Your task to perform on an android device: toggle translation in the chrome app Image 0: 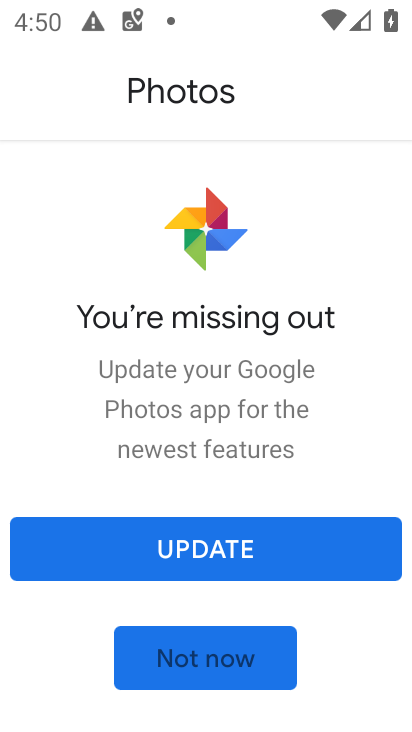
Step 0: press home button
Your task to perform on an android device: toggle translation in the chrome app Image 1: 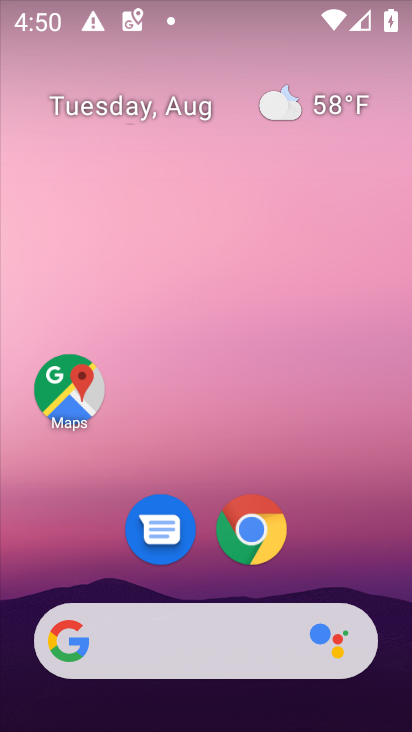
Step 1: click (245, 531)
Your task to perform on an android device: toggle translation in the chrome app Image 2: 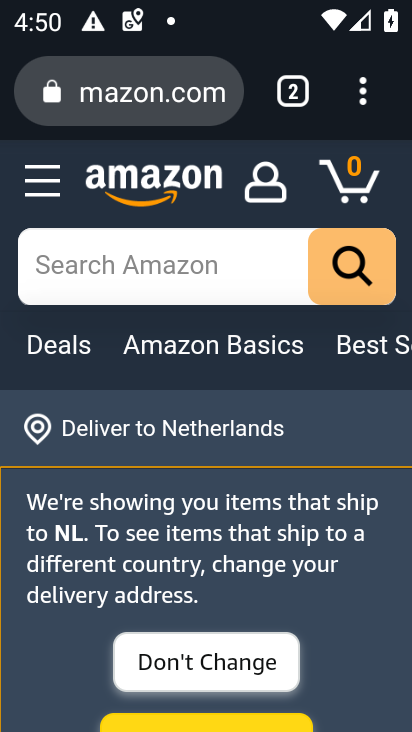
Step 2: click (377, 93)
Your task to perform on an android device: toggle translation in the chrome app Image 3: 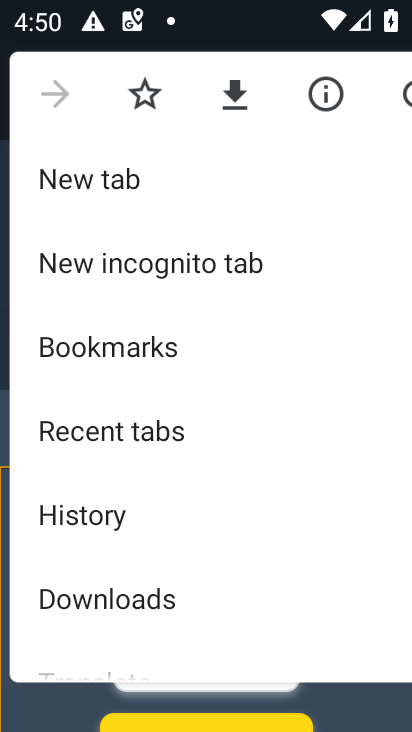
Step 3: drag from (152, 566) to (158, 212)
Your task to perform on an android device: toggle translation in the chrome app Image 4: 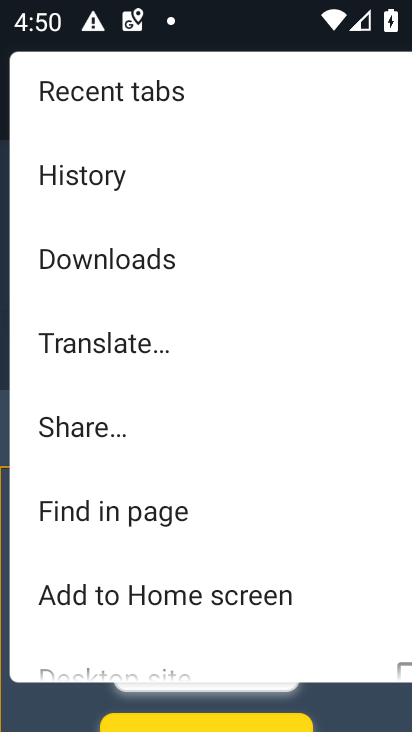
Step 4: drag from (136, 567) to (146, 270)
Your task to perform on an android device: toggle translation in the chrome app Image 5: 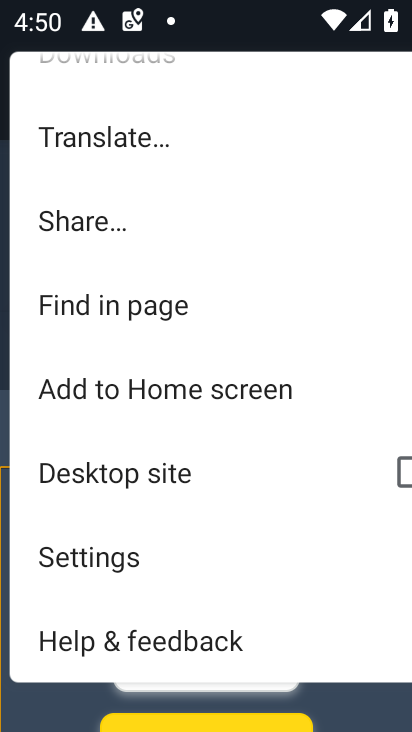
Step 5: click (122, 550)
Your task to perform on an android device: toggle translation in the chrome app Image 6: 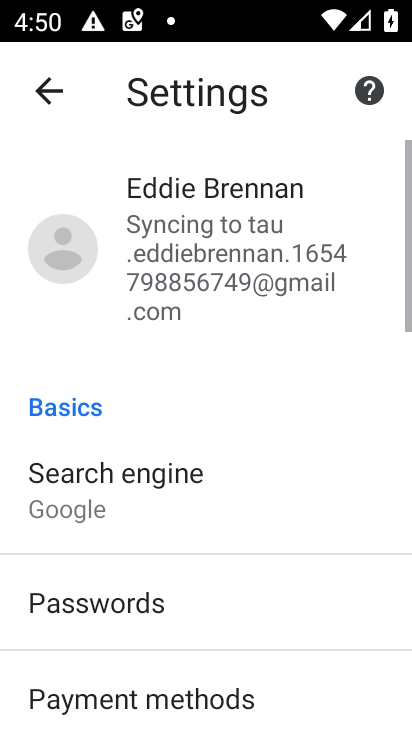
Step 6: drag from (158, 465) to (191, 230)
Your task to perform on an android device: toggle translation in the chrome app Image 7: 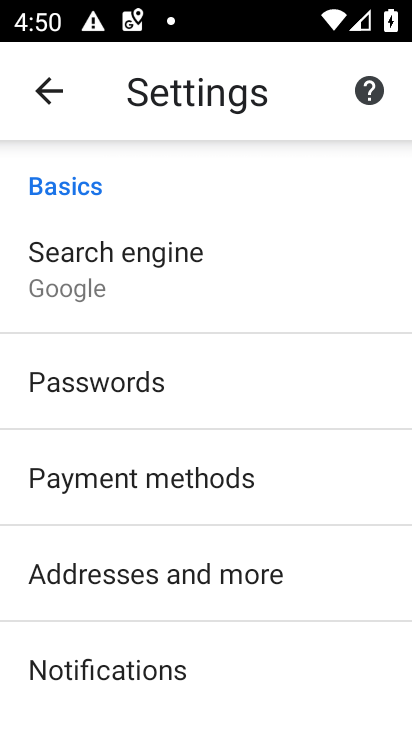
Step 7: drag from (195, 557) to (205, 266)
Your task to perform on an android device: toggle translation in the chrome app Image 8: 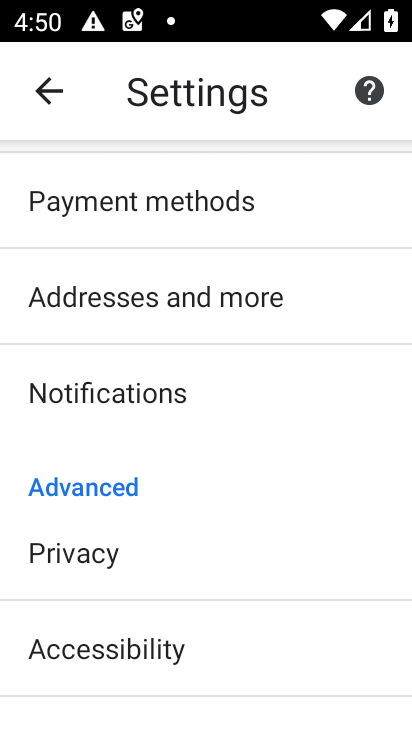
Step 8: drag from (171, 616) to (189, 298)
Your task to perform on an android device: toggle translation in the chrome app Image 9: 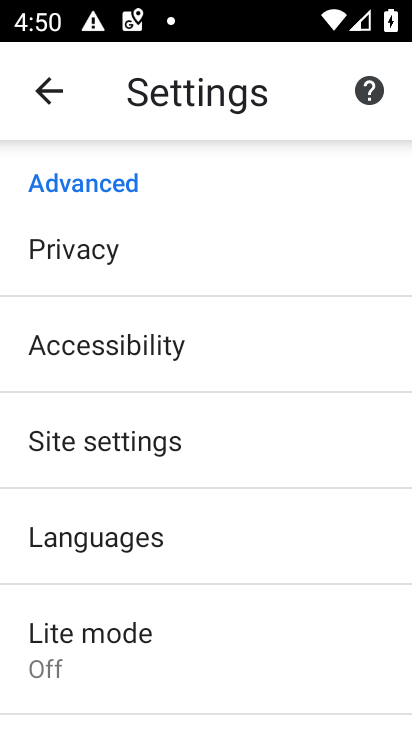
Step 9: drag from (144, 607) to (186, 340)
Your task to perform on an android device: toggle translation in the chrome app Image 10: 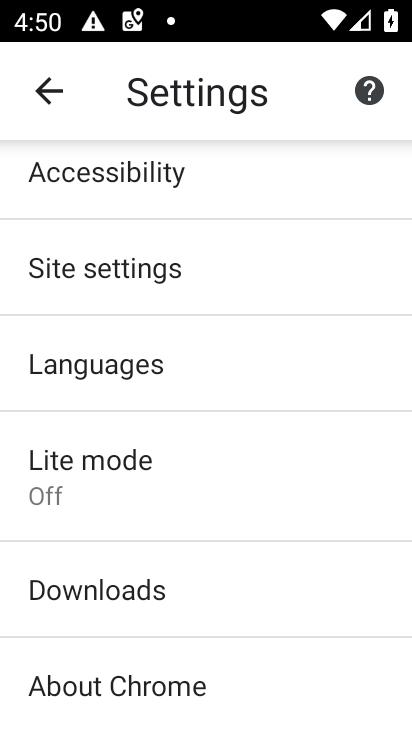
Step 10: drag from (192, 548) to (214, 290)
Your task to perform on an android device: toggle translation in the chrome app Image 11: 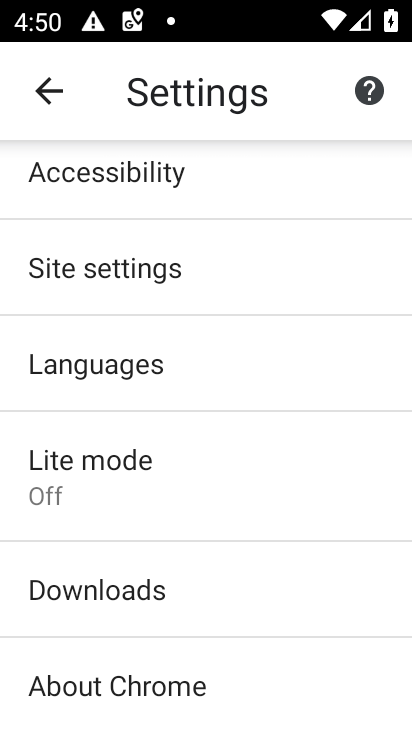
Step 11: click (118, 377)
Your task to perform on an android device: toggle translation in the chrome app Image 12: 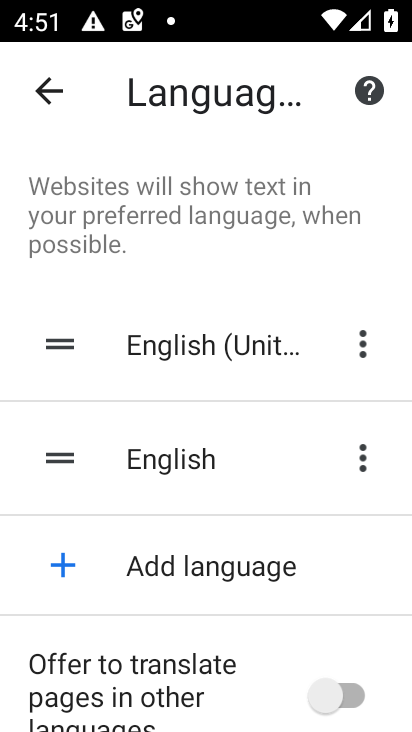
Step 12: click (348, 690)
Your task to perform on an android device: toggle translation in the chrome app Image 13: 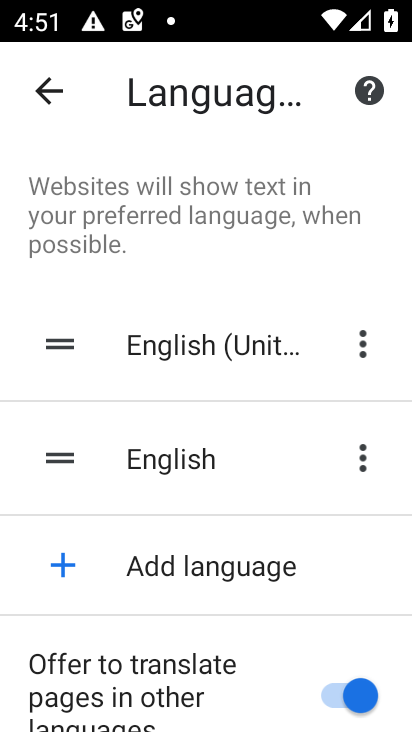
Step 13: task complete